Your task to perform on an android device: Search for seafood restaurants on Google Maps Image 0: 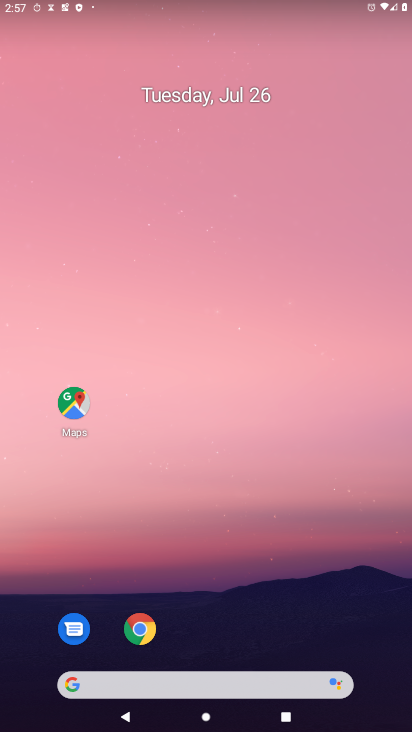
Step 0: drag from (275, 655) to (370, 0)
Your task to perform on an android device: Search for seafood restaurants on Google Maps Image 1: 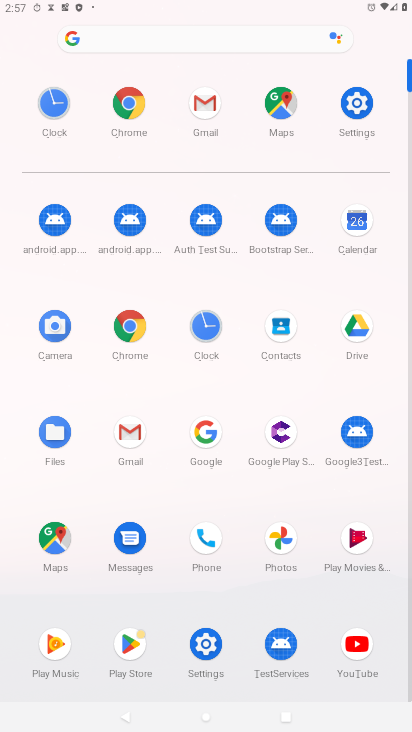
Step 1: click (59, 544)
Your task to perform on an android device: Search for seafood restaurants on Google Maps Image 2: 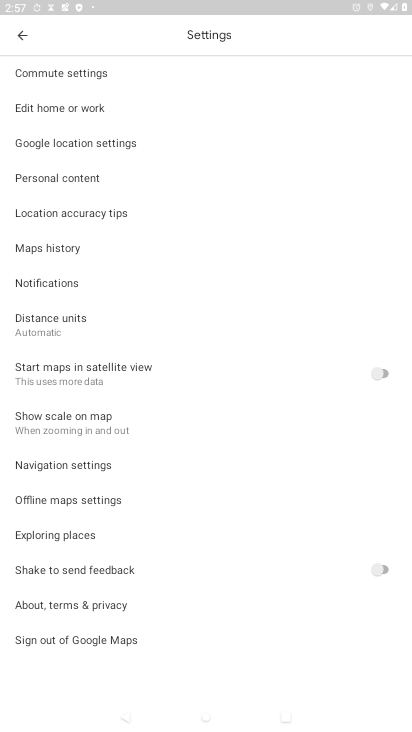
Step 2: press back button
Your task to perform on an android device: Search for seafood restaurants on Google Maps Image 3: 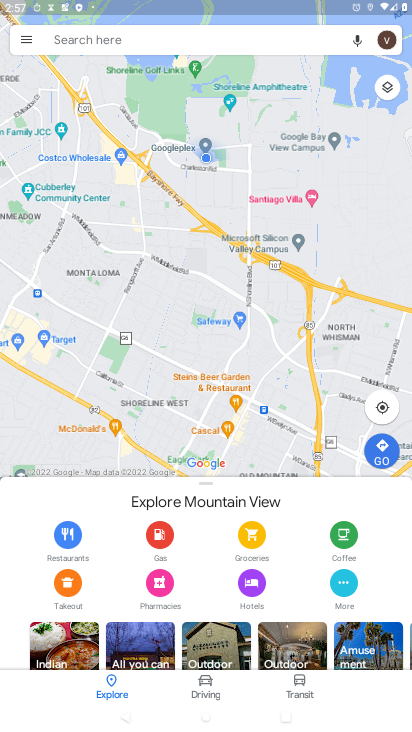
Step 3: click (130, 37)
Your task to perform on an android device: Search for seafood restaurants on Google Maps Image 4: 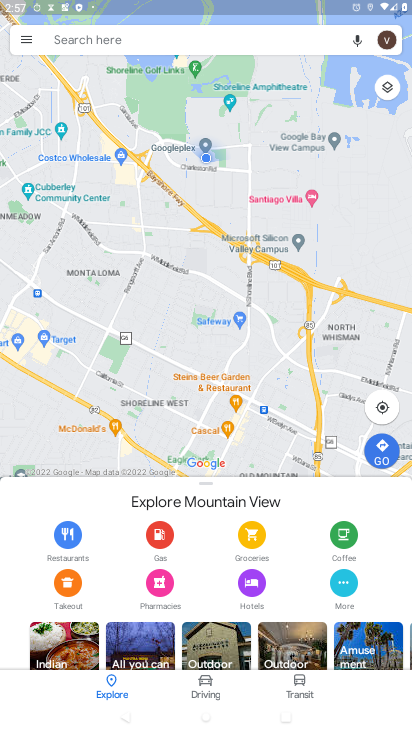
Step 4: click (130, 37)
Your task to perform on an android device: Search for seafood restaurants on Google Maps Image 5: 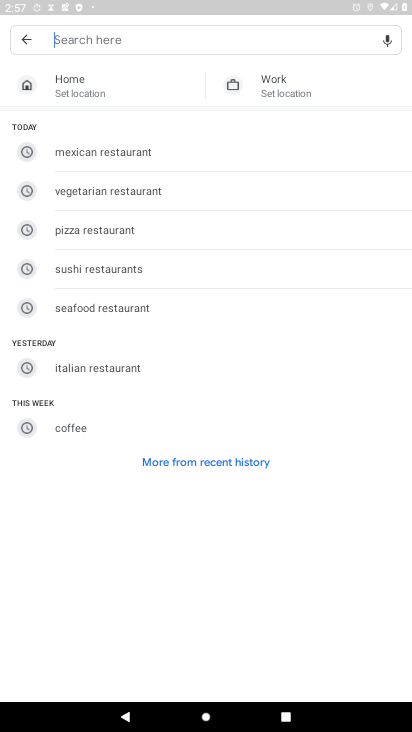
Step 5: click (90, 304)
Your task to perform on an android device: Search for seafood restaurants on Google Maps Image 6: 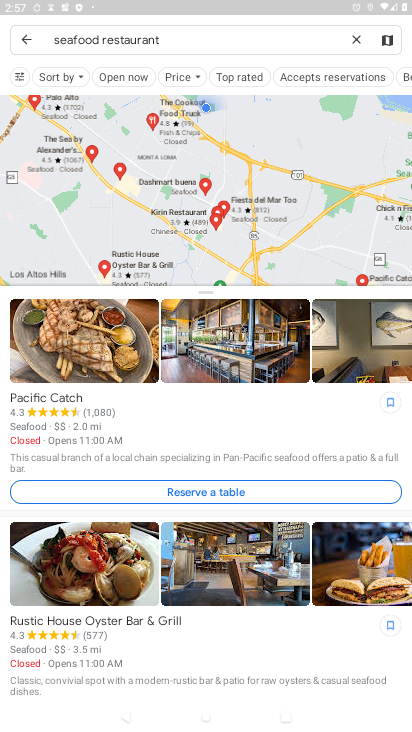
Step 6: task complete